Your task to perform on an android device: toggle sleep mode Image 0: 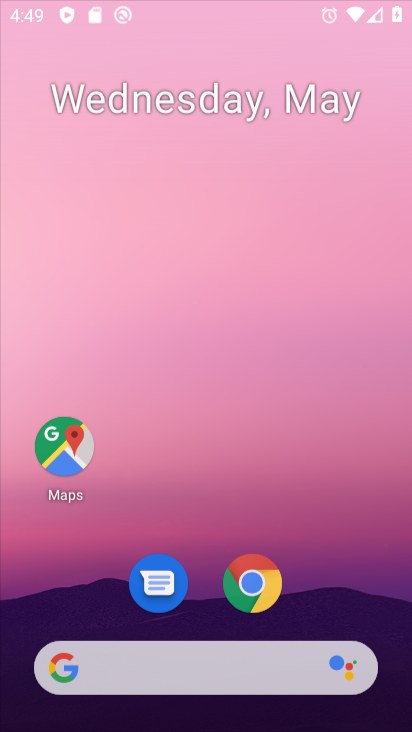
Step 0: click (224, 78)
Your task to perform on an android device: toggle sleep mode Image 1: 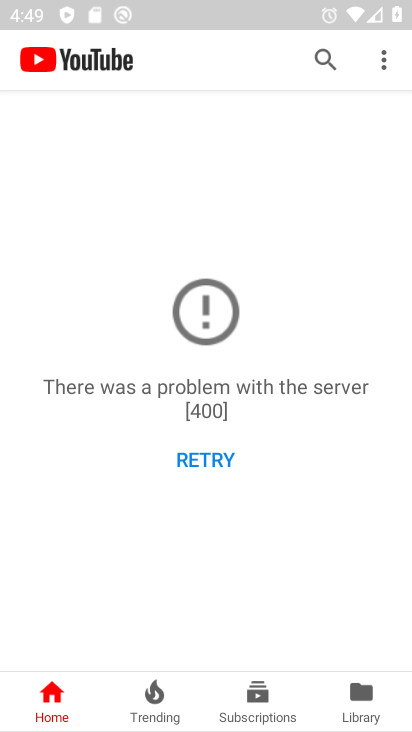
Step 1: press back button
Your task to perform on an android device: toggle sleep mode Image 2: 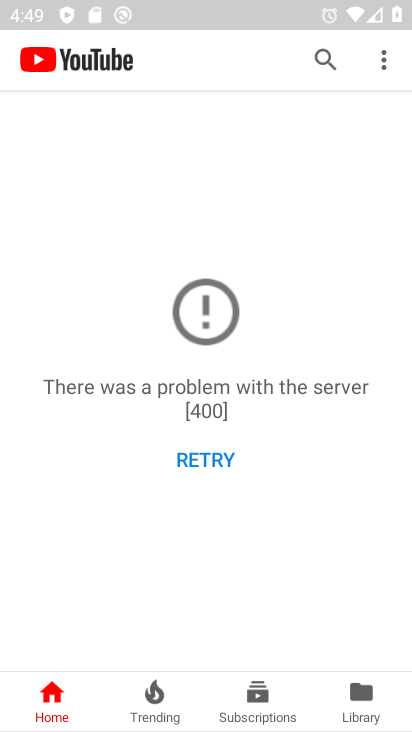
Step 2: press back button
Your task to perform on an android device: toggle sleep mode Image 3: 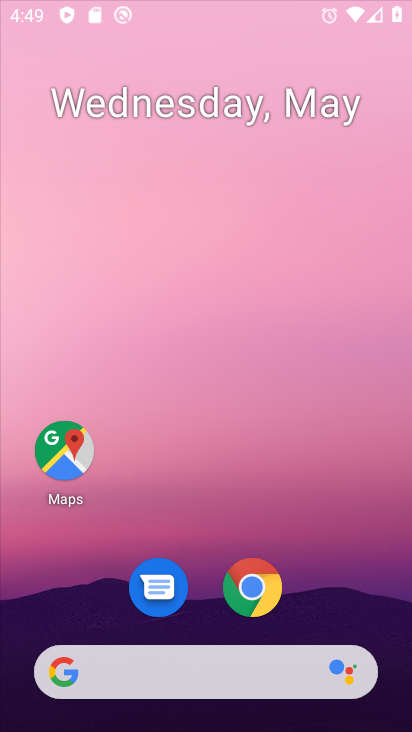
Step 3: press back button
Your task to perform on an android device: toggle sleep mode Image 4: 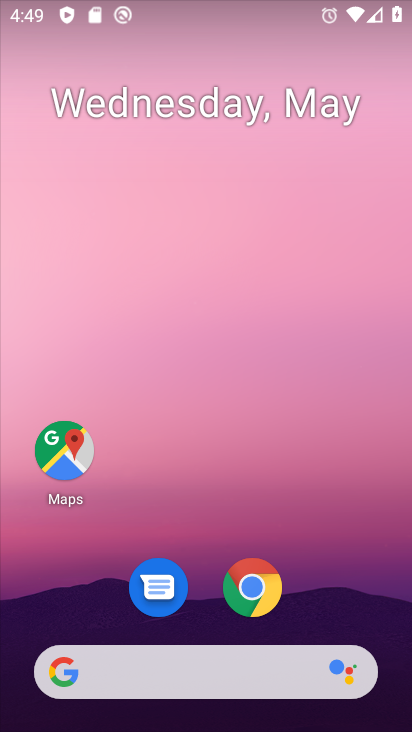
Step 4: drag from (282, 507) to (192, 28)
Your task to perform on an android device: toggle sleep mode Image 5: 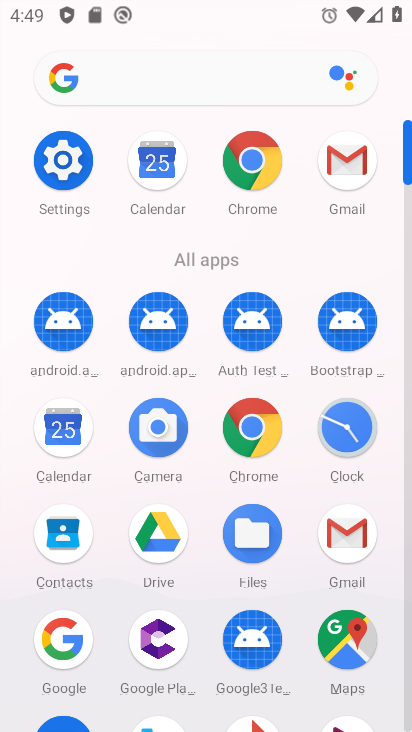
Step 5: click (65, 156)
Your task to perform on an android device: toggle sleep mode Image 6: 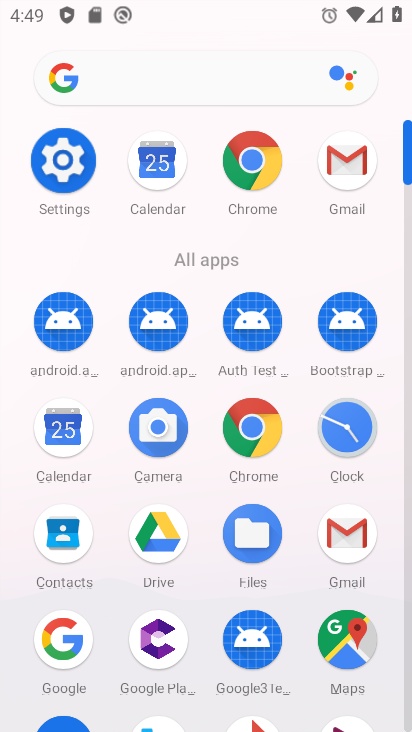
Step 6: click (65, 156)
Your task to perform on an android device: toggle sleep mode Image 7: 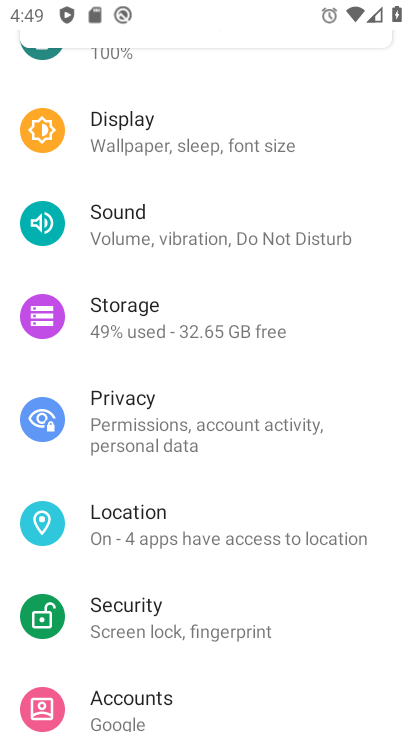
Step 7: click (153, 146)
Your task to perform on an android device: toggle sleep mode Image 8: 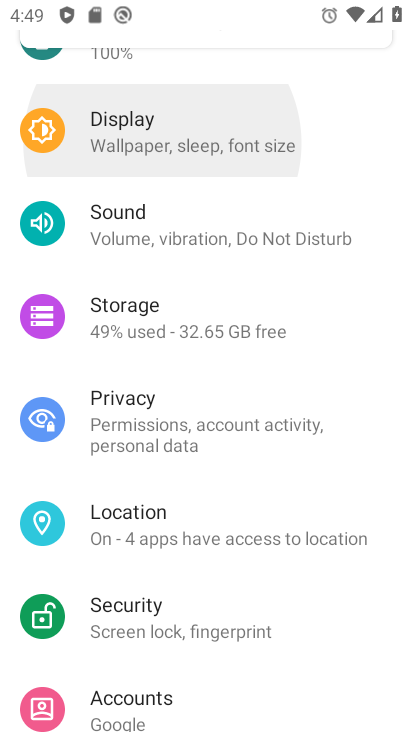
Step 8: click (153, 145)
Your task to perform on an android device: toggle sleep mode Image 9: 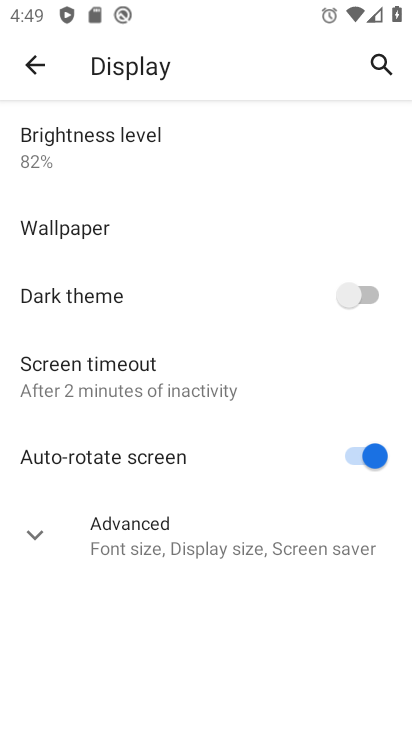
Step 9: click (65, 388)
Your task to perform on an android device: toggle sleep mode Image 10: 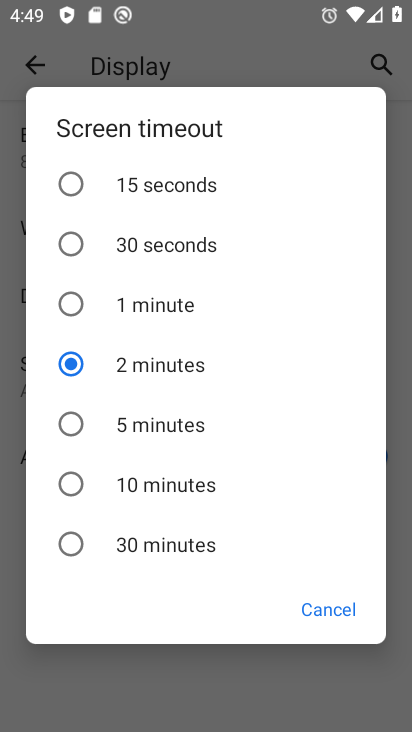
Step 10: click (63, 427)
Your task to perform on an android device: toggle sleep mode Image 11: 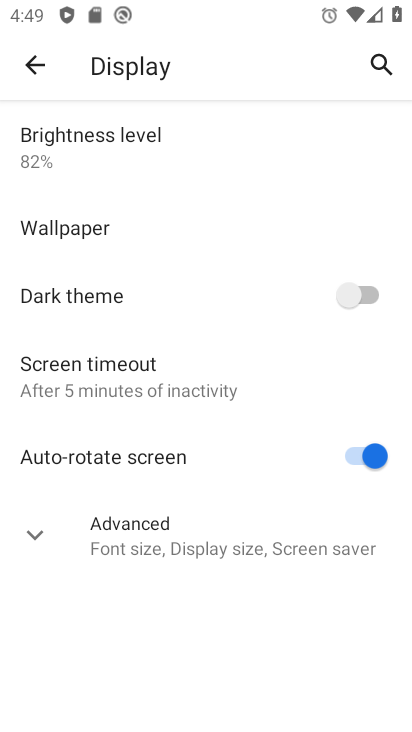
Step 11: task complete